Your task to perform on an android device: Check the news Image 0: 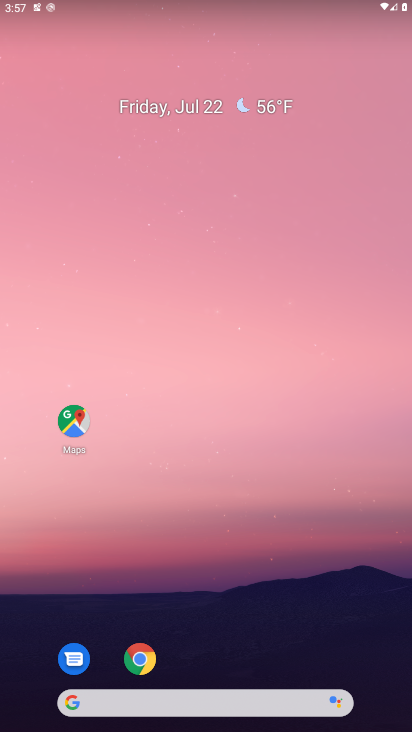
Step 0: drag from (222, 691) to (255, 147)
Your task to perform on an android device: Check the news Image 1: 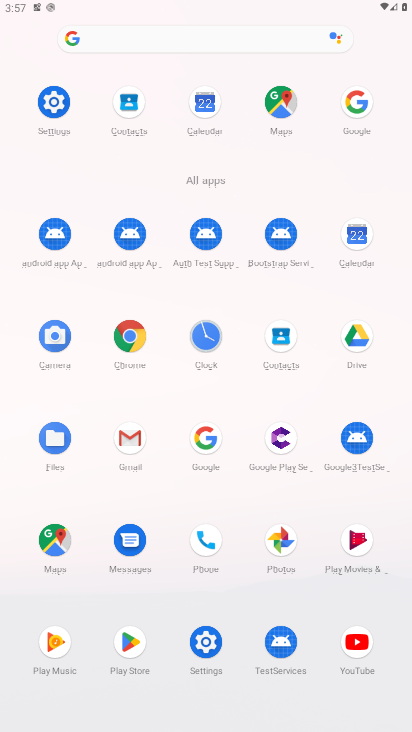
Step 1: click (195, 433)
Your task to perform on an android device: Check the news Image 2: 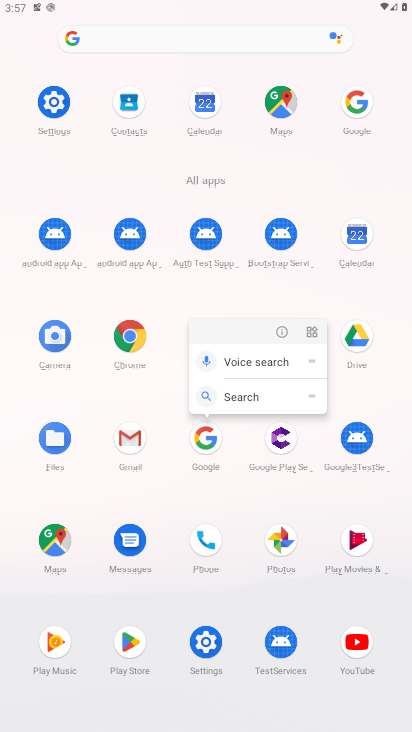
Step 2: click (200, 445)
Your task to perform on an android device: Check the news Image 3: 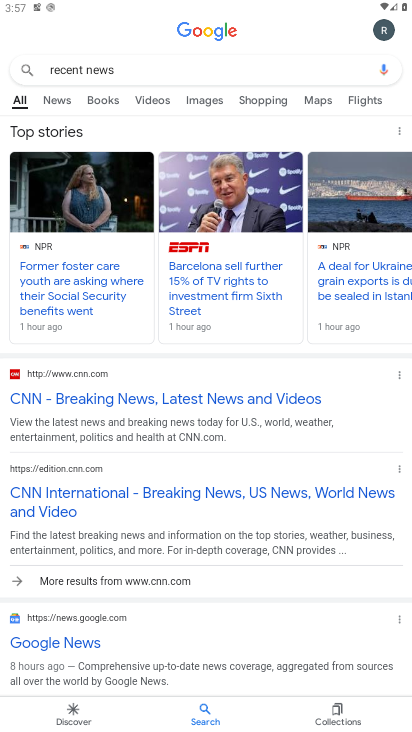
Step 3: click (136, 71)
Your task to perform on an android device: Check the news Image 4: 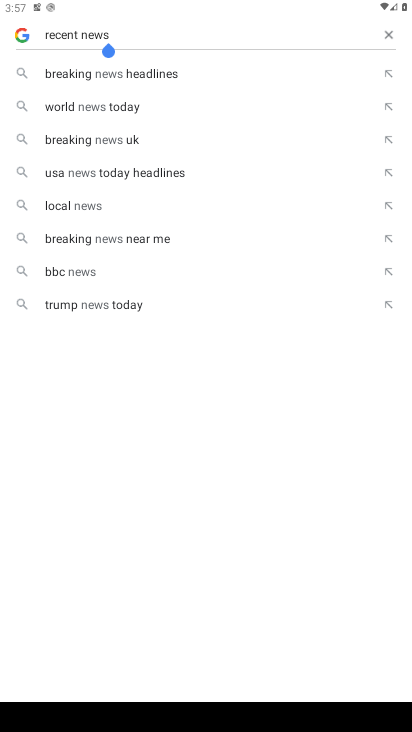
Step 4: click (385, 36)
Your task to perform on an android device: Check the news Image 5: 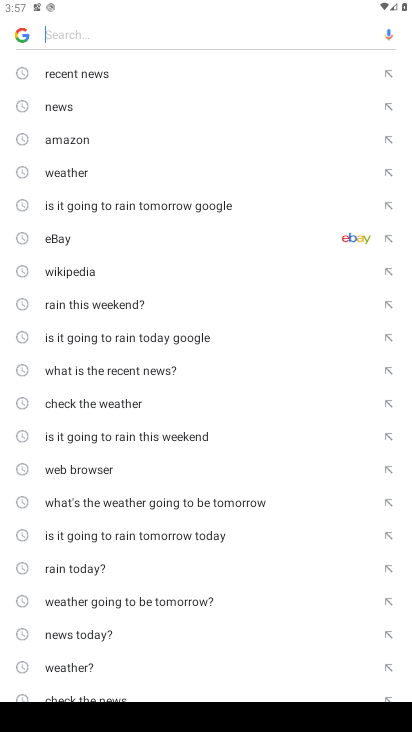
Step 5: click (64, 105)
Your task to perform on an android device: Check the news Image 6: 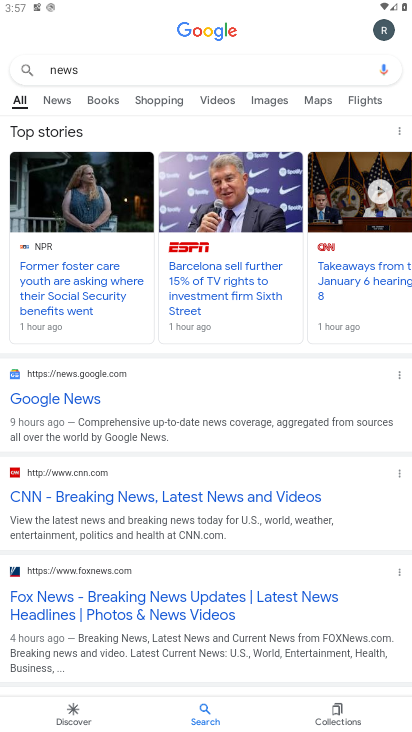
Step 6: task complete